Your task to perform on an android device: see tabs open on other devices in the chrome app Image 0: 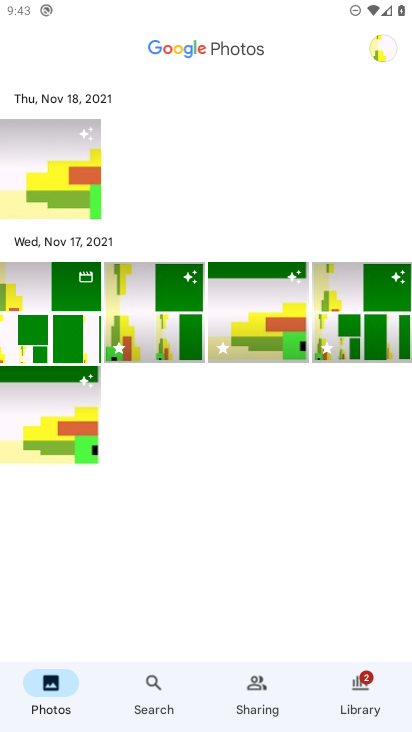
Step 0: press home button
Your task to perform on an android device: see tabs open on other devices in the chrome app Image 1: 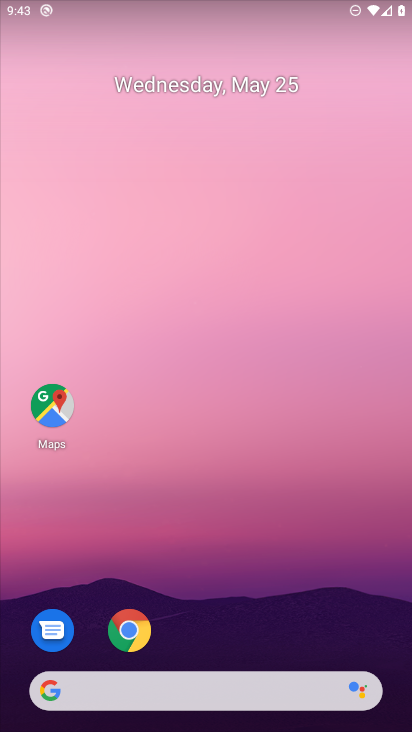
Step 1: drag from (176, 669) to (211, 227)
Your task to perform on an android device: see tabs open on other devices in the chrome app Image 2: 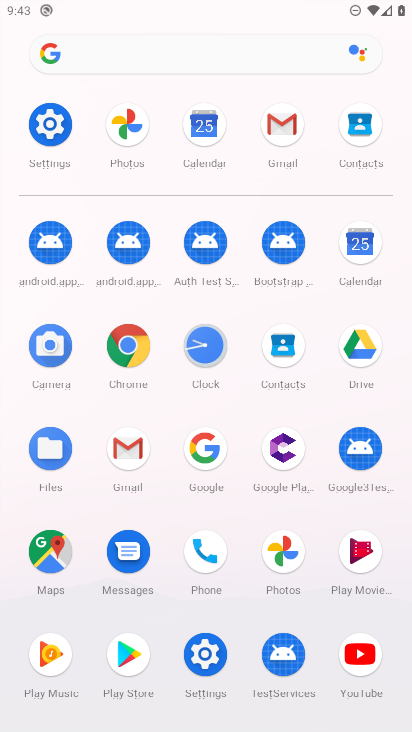
Step 2: click (139, 344)
Your task to perform on an android device: see tabs open on other devices in the chrome app Image 3: 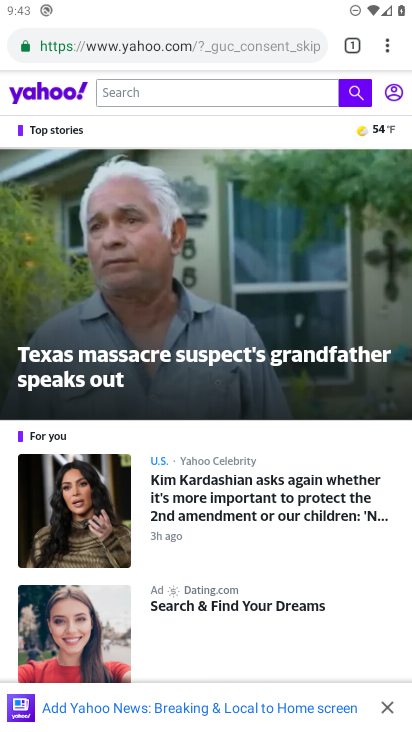
Step 3: click (350, 47)
Your task to perform on an android device: see tabs open on other devices in the chrome app Image 4: 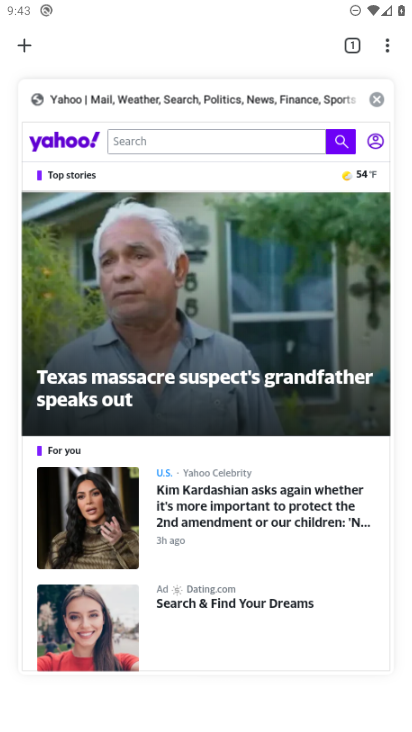
Step 4: task complete